Your task to perform on an android device: Open settings on Google Maps Image 0: 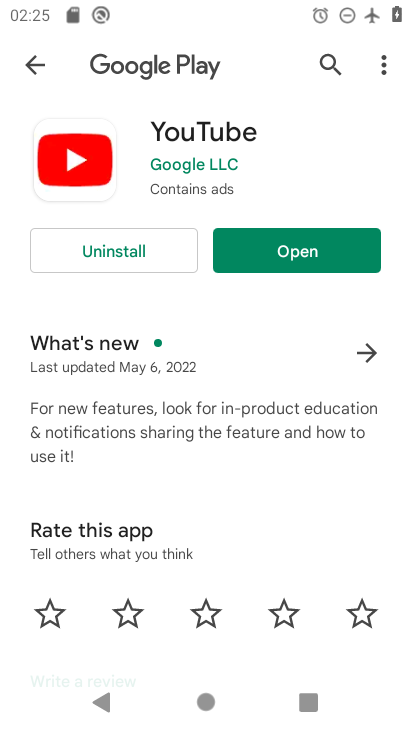
Step 0: press home button
Your task to perform on an android device: Open settings on Google Maps Image 1: 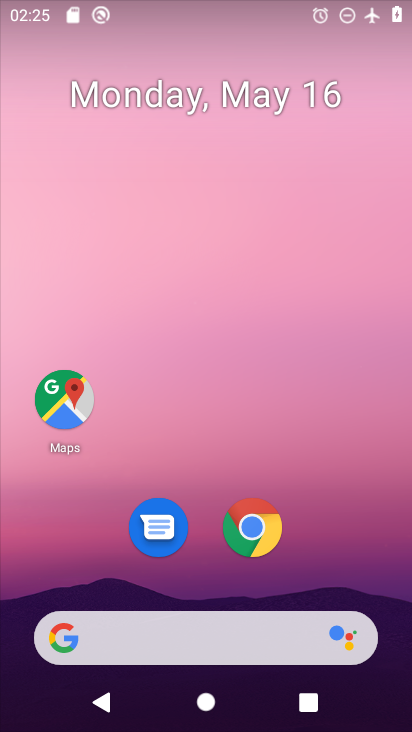
Step 1: click (50, 411)
Your task to perform on an android device: Open settings on Google Maps Image 2: 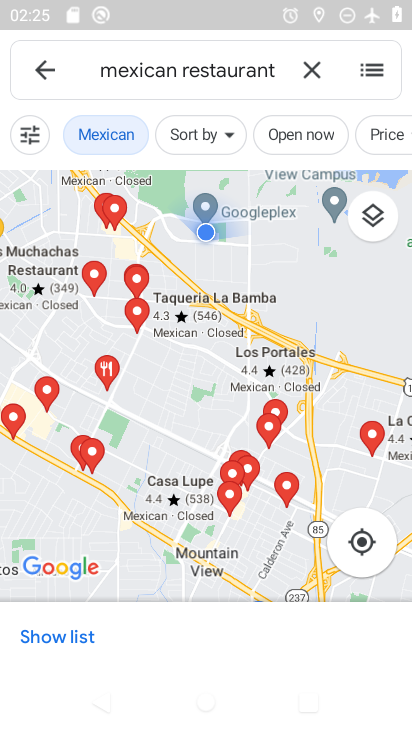
Step 2: task complete